Your task to perform on an android device: Open the Play Movies app and select the watchlist tab. Image 0: 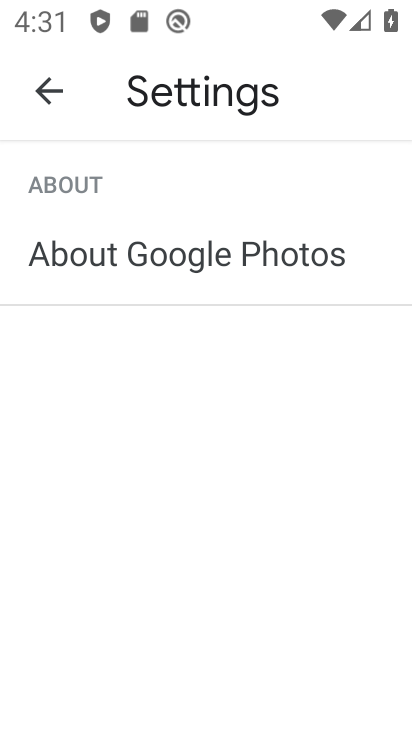
Step 0: press home button
Your task to perform on an android device: Open the Play Movies app and select the watchlist tab. Image 1: 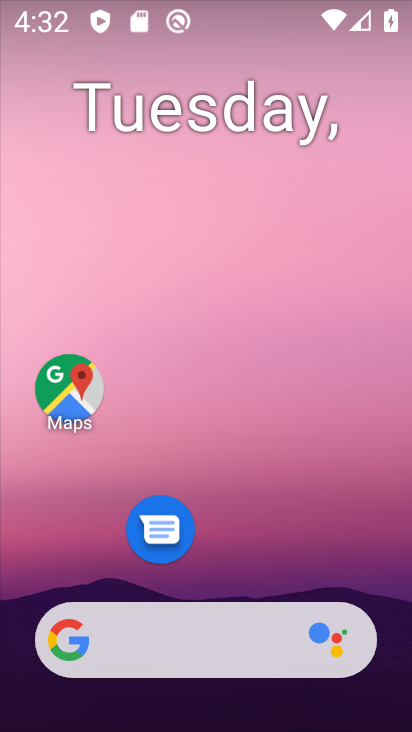
Step 1: drag from (223, 572) to (268, 161)
Your task to perform on an android device: Open the Play Movies app and select the watchlist tab. Image 2: 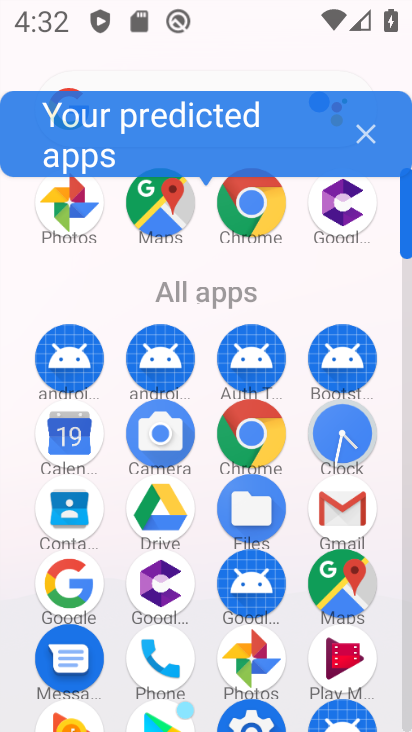
Step 2: drag from (187, 667) to (223, 287)
Your task to perform on an android device: Open the Play Movies app and select the watchlist tab. Image 3: 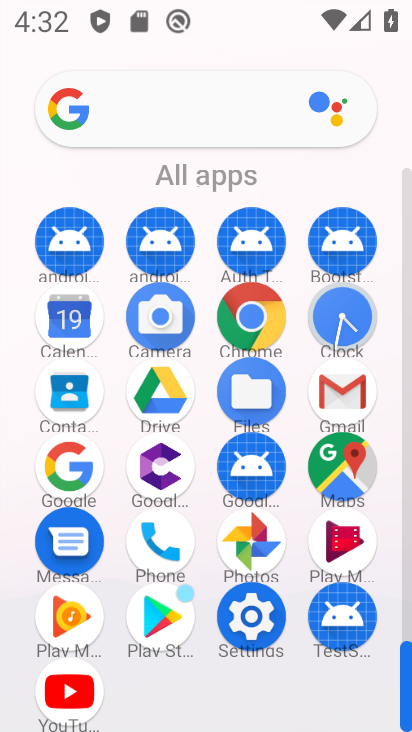
Step 3: click (341, 540)
Your task to perform on an android device: Open the Play Movies app and select the watchlist tab. Image 4: 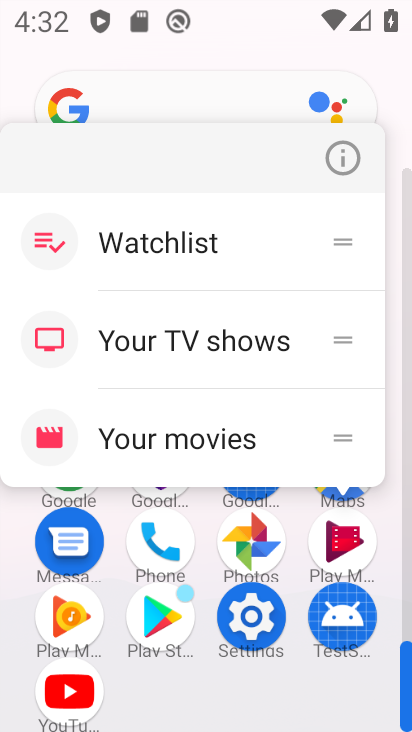
Step 4: click (53, 611)
Your task to perform on an android device: Open the Play Movies app and select the watchlist tab. Image 5: 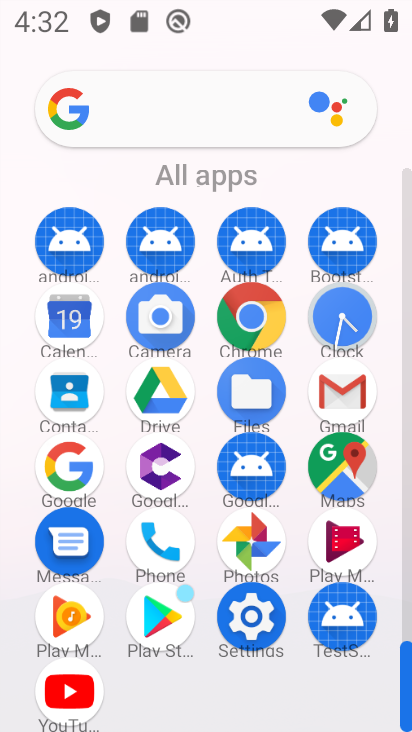
Step 5: click (350, 550)
Your task to perform on an android device: Open the Play Movies app and select the watchlist tab. Image 6: 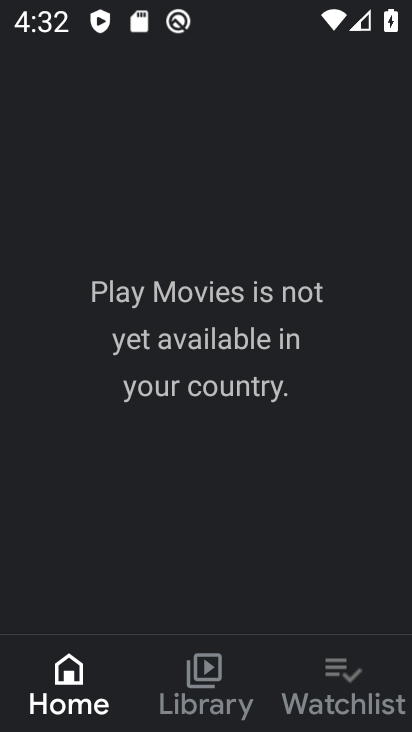
Step 6: click (311, 701)
Your task to perform on an android device: Open the Play Movies app and select the watchlist tab. Image 7: 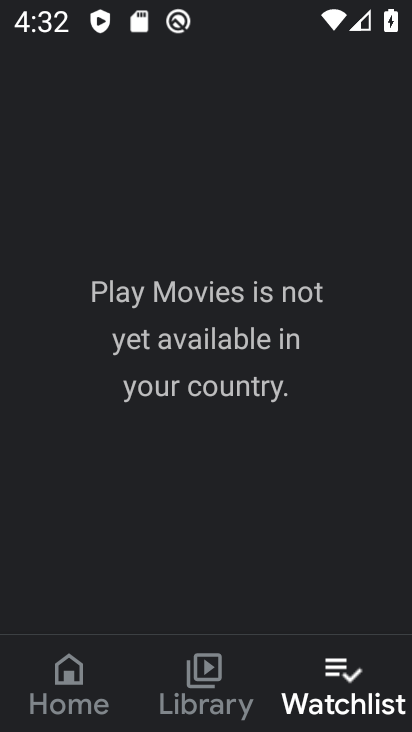
Step 7: task complete